Your task to perform on an android device: open a new tab in the chrome app Image 0: 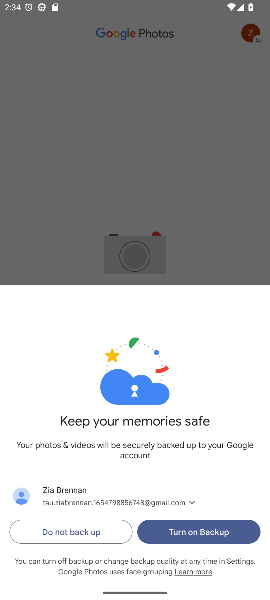
Step 0: press home button
Your task to perform on an android device: open a new tab in the chrome app Image 1: 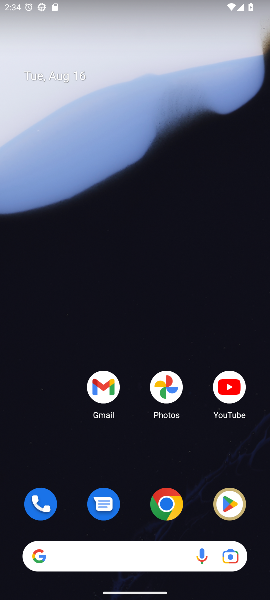
Step 1: click (165, 505)
Your task to perform on an android device: open a new tab in the chrome app Image 2: 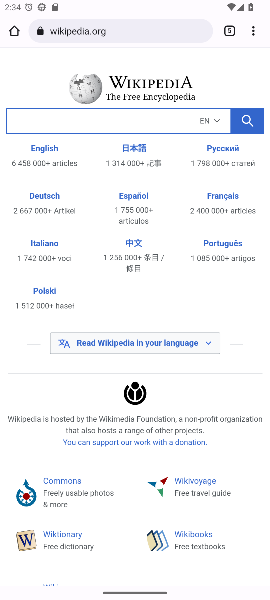
Step 2: click (252, 21)
Your task to perform on an android device: open a new tab in the chrome app Image 3: 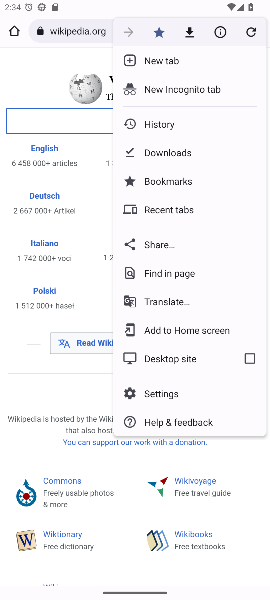
Step 3: click (164, 60)
Your task to perform on an android device: open a new tab in the chrome app Image 4: 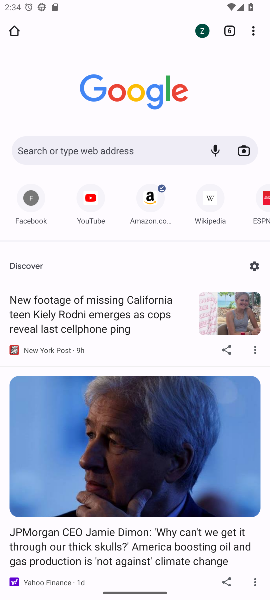
Step 4: task complete